Your task to perform on an android device: turn off translation in the chrome app Image 0: 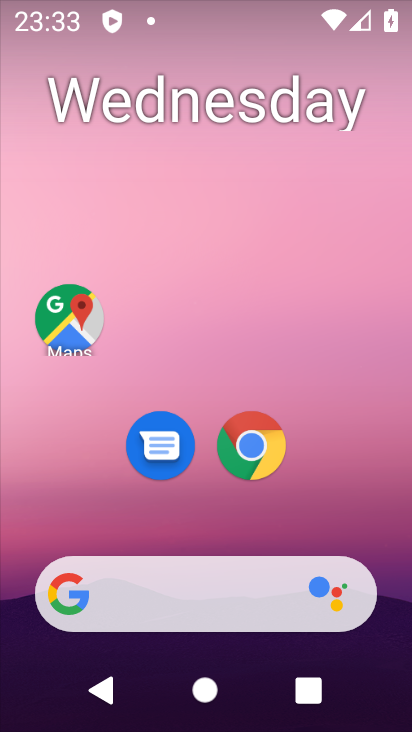
Step 0: click (233, 463)
Your task to perform on an android device: turn off translation in the chrome app Image 1: 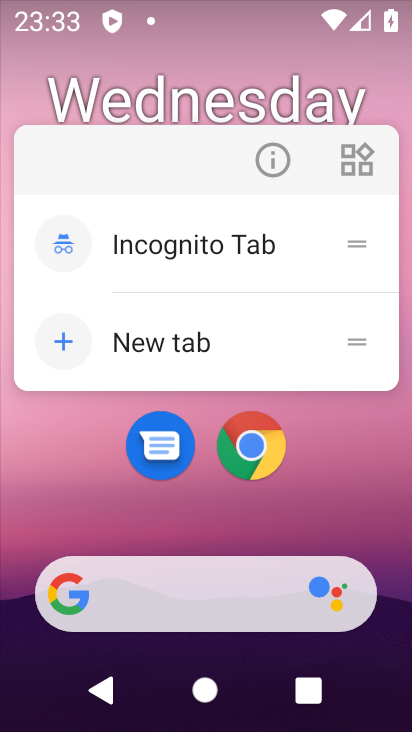
Step 1: click (250, 443)
Your task to perform on an android device: turn off translation in the chrome app Image 2: 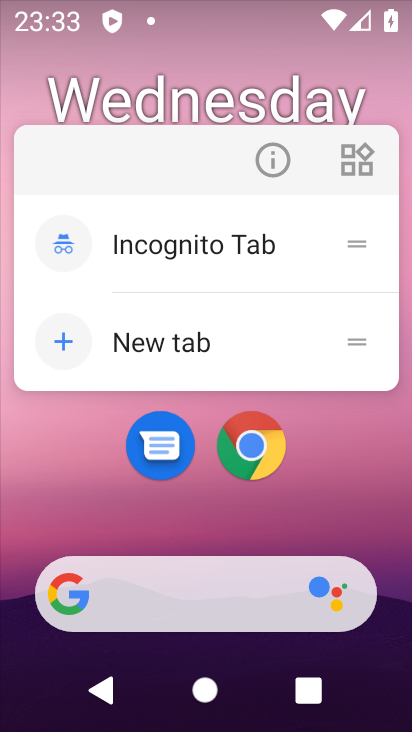
Step 2: click (259, 439)
Your task to perform on an android device: turn off translation in the chrome app Image 3: 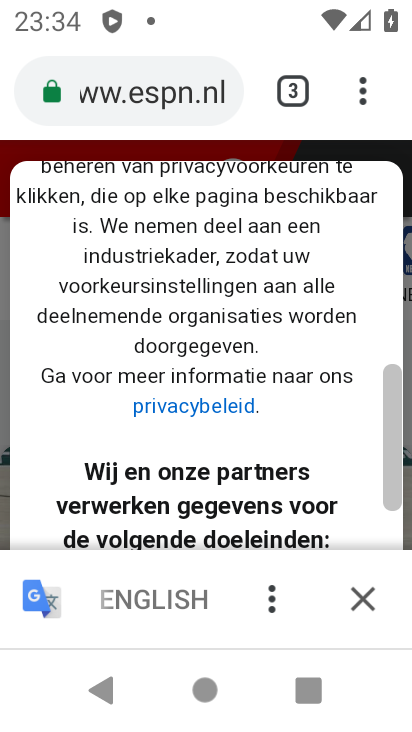
Step 3: click (366, 96)
Your task to perform on an android device: turn off translation in the chrome app Image 4: 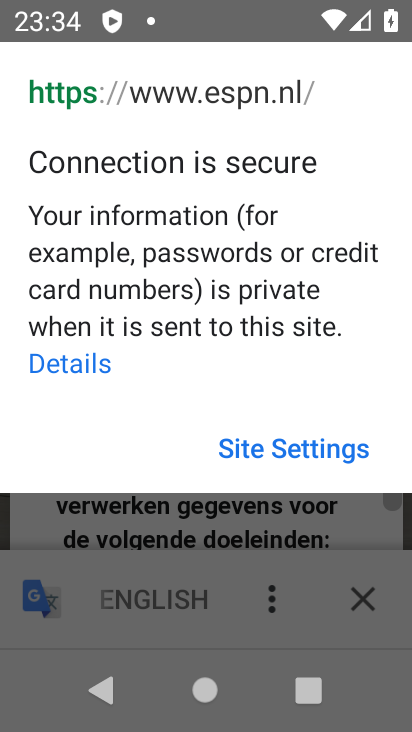
Step 4: click (164, 519)
Your task to perform on an android device: turn off translation in the chrome app Image 5: 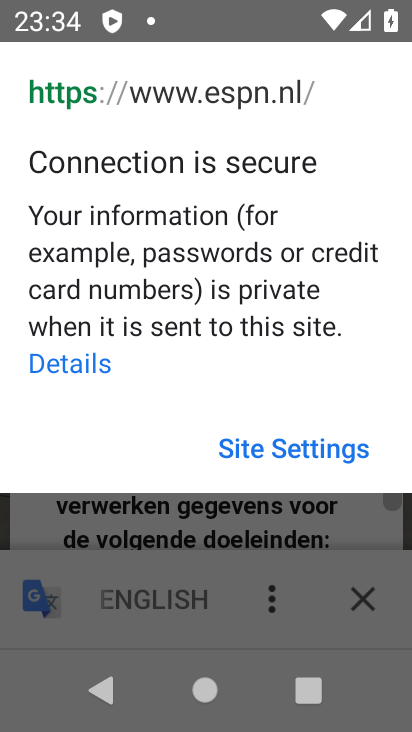
Step 5: press back button
Your task to perform on an android device: turn off translation in the chrome app Image 6: 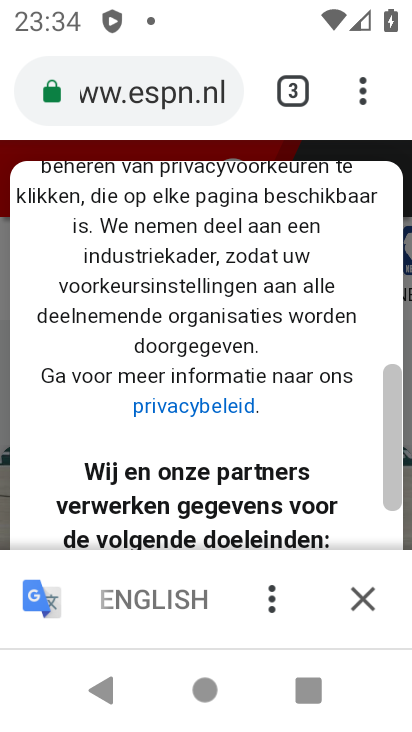
Step 6: drag from (361, 87) to (211, 477)
Your task to perform on an android device: turn off translation in the chrome app Image 7: 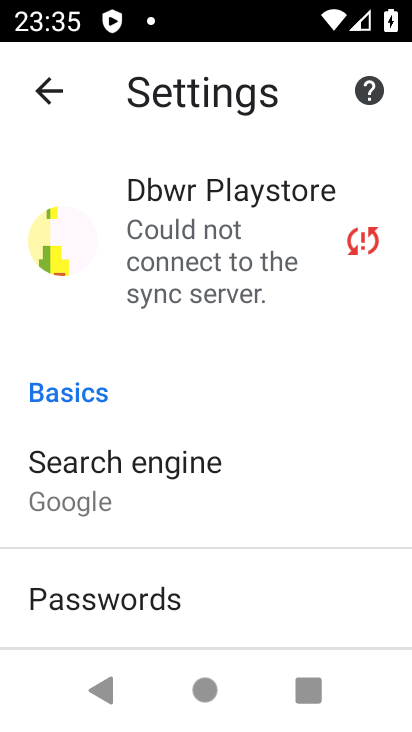
Step 7: drag from (187, 586) to (271, 116)
Your task to perform on an android device: turn off translation in the chrome app Image 8: 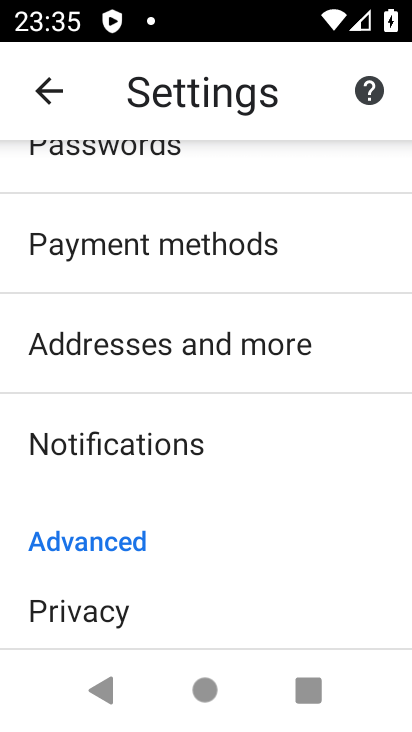
Step 8: drag from (180, 556) to (315, 93)
Your task to perform on an android device: turn off translation in the chrome app Image 9: 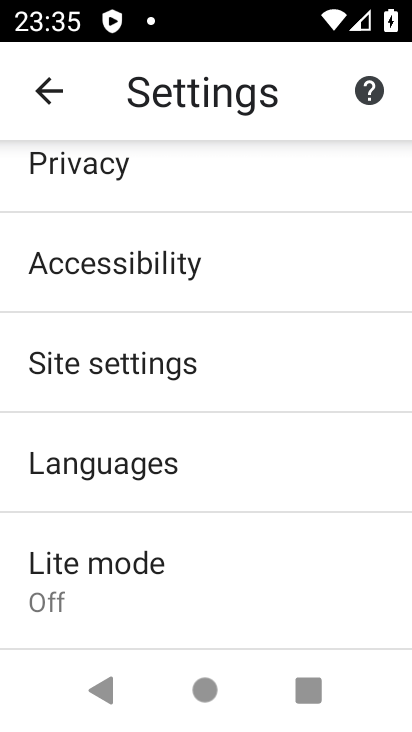
Step 9: click (125, 456)
Your task to perform on an android device: turn off translation in the chrome app Image 10: 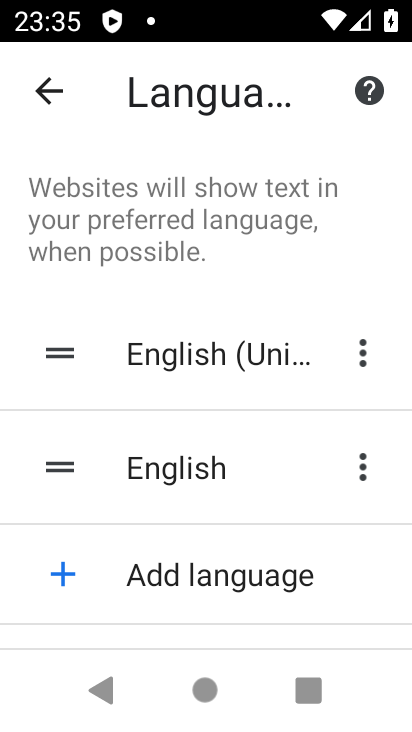
Step 10: drag from (225, 565) to (324, 204)
Your task to perform on an android device: turn off translation in the chrome app Image 11: 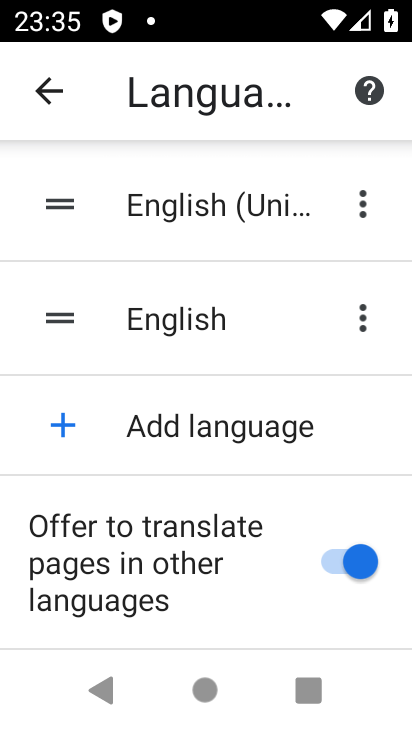
Step 11: click (372, 554)
Your task to perform on an android device: turn off translation in the chrome app Image 12: 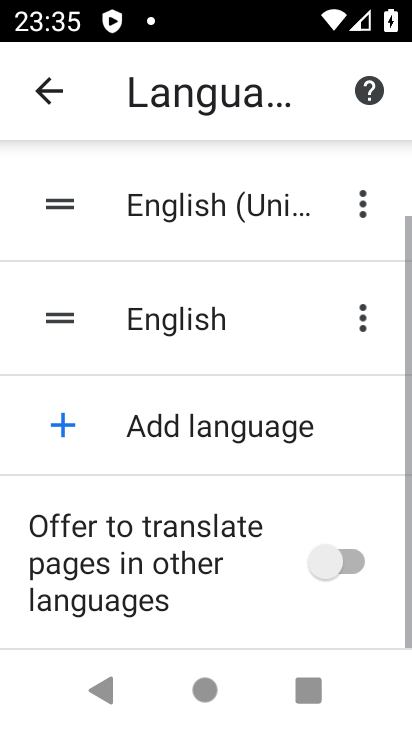
Step 12: task complete